Your task to perform on an android device: Open eBay Image 0: 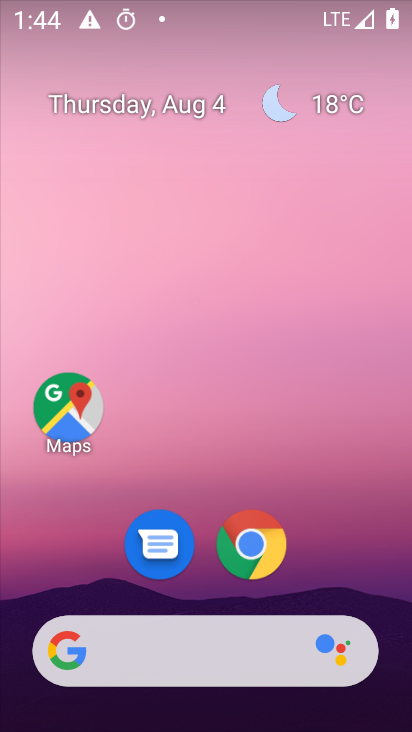
Step 0: click (236, 542)
Your task to perform on an android device: Open eBay Image 1: 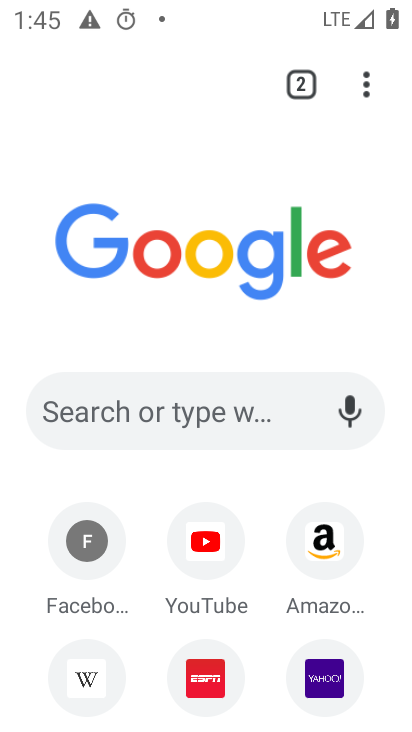
Step 1: click (195, 415)
Your task to perform on an android device: Open eBay Image 2: 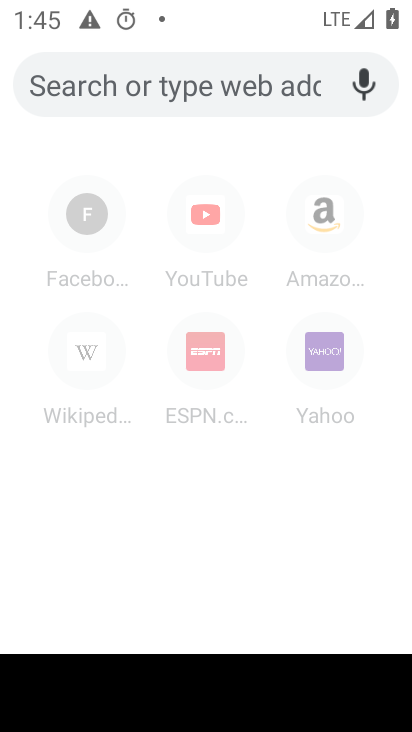
Step 2: type "eBay"
Your task to perform on an android device: Open eBay Image 3: 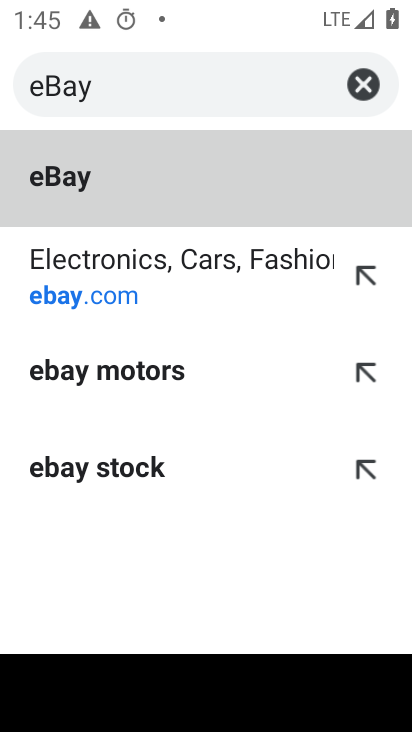
Step 3: click (79, 181)
Your task to perform on an android device: Open eBay Image 4: 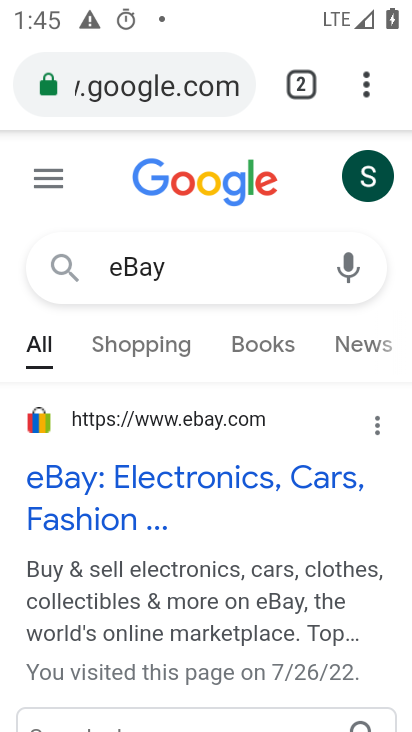
Step 4: task complete